Your task to perform on an android device: Go to location settings Image 0: 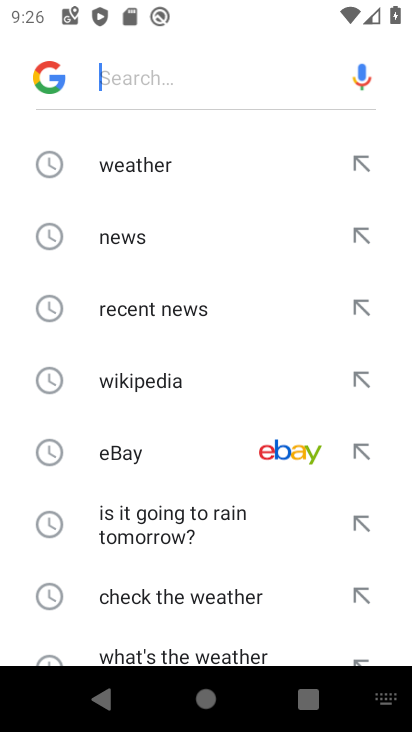
Step 0: press home button
Your task to perform on an android device: Go to location settings Image 1: 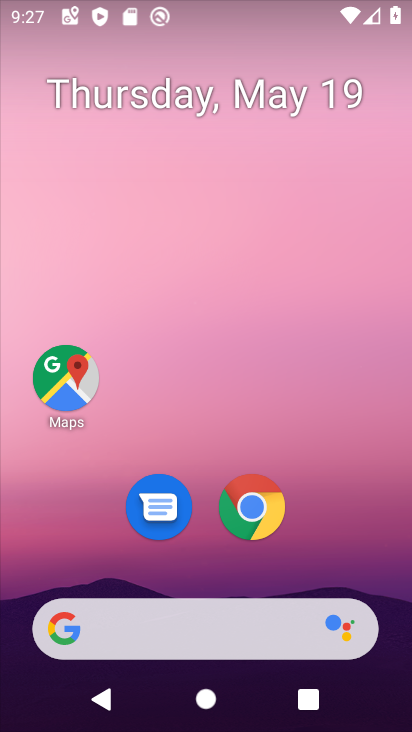
Step 1: drag from (384, 585) to (309, 37)
Your task to perform on an android device: Go to location settings Image 2: 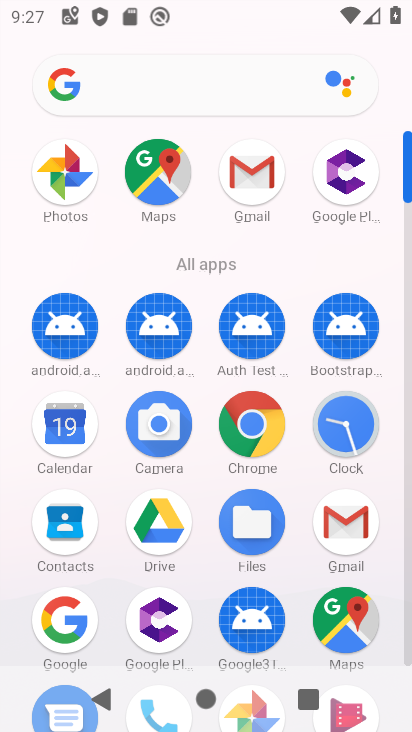
Step 2: click (405, 653)
Your task to perform on an android device: Go to location settings Image 3: 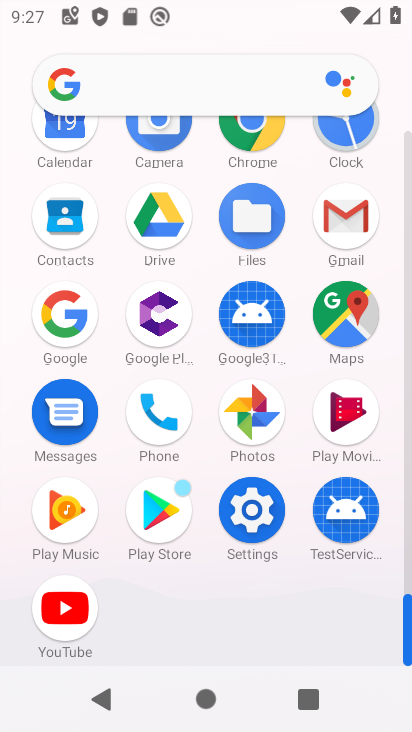
Step 3: click (248, 514)
Your task to perform on an android device: Go to location settings Image 4: 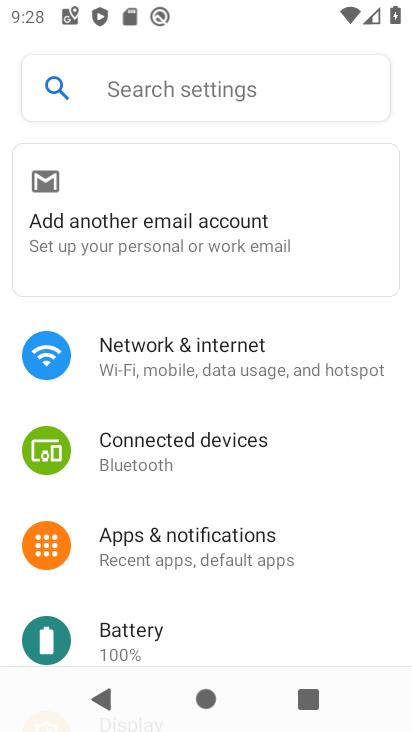
Step 4: drag from (282, 593) to (300, 113)
Your task to perform on an android device: Go to location settings Image 5: 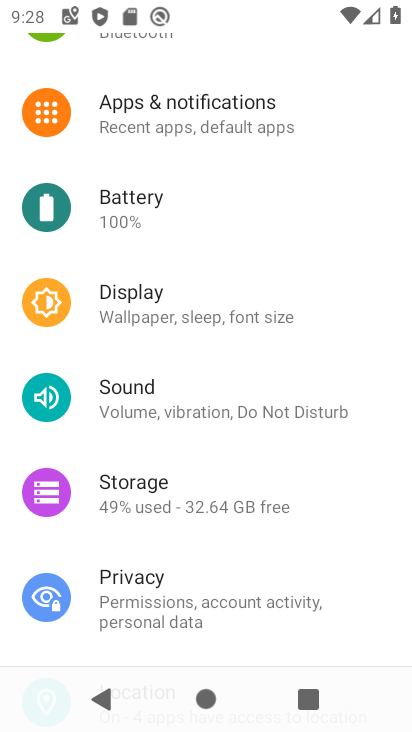
Step 5: drag from (167, 579) to (260, 168)
Your task to perform on an android device: Go to location settings Image 6: 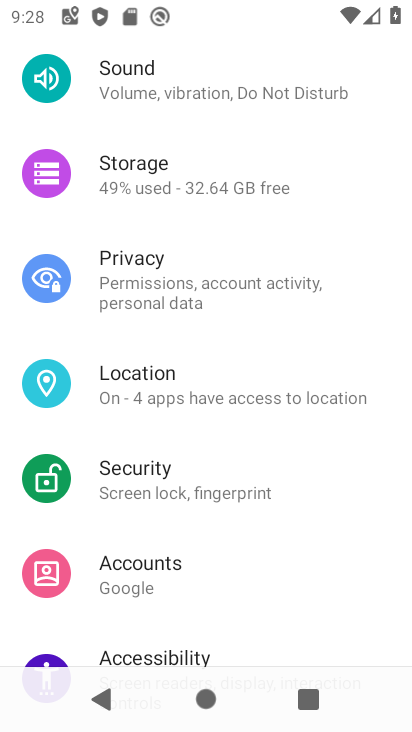
Step 6: click (153, 363)
Your task to perform on an android device: Go to location settings Image 7: 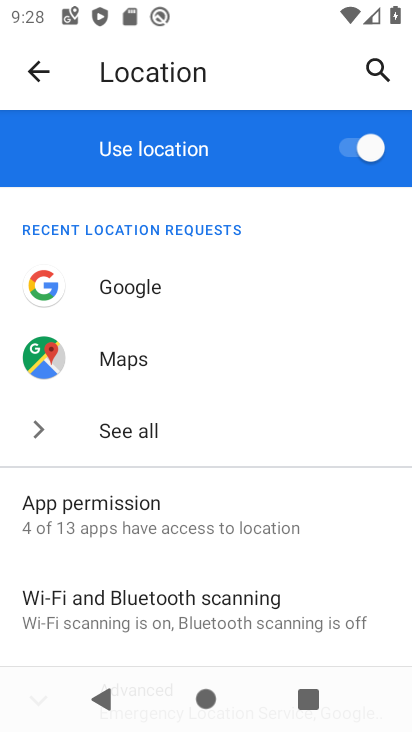
Step 7: drag from (191, 510) to (231, 139)
Your task to perform on an android device: Go to location settings Image 8: 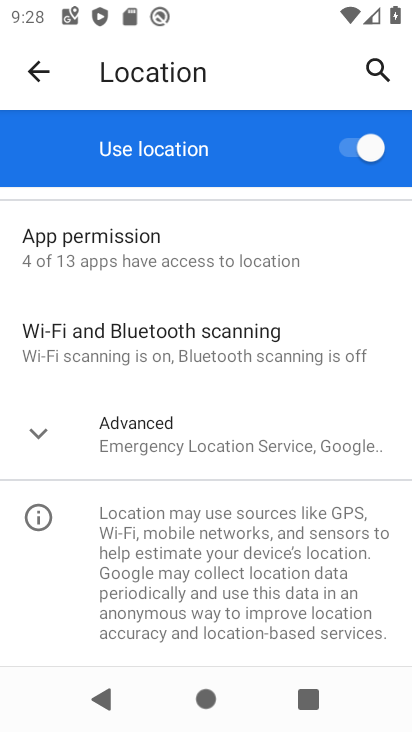
Step 8: click (49, 429)
Your task to perform on an android device: Go to location settings Image 9: 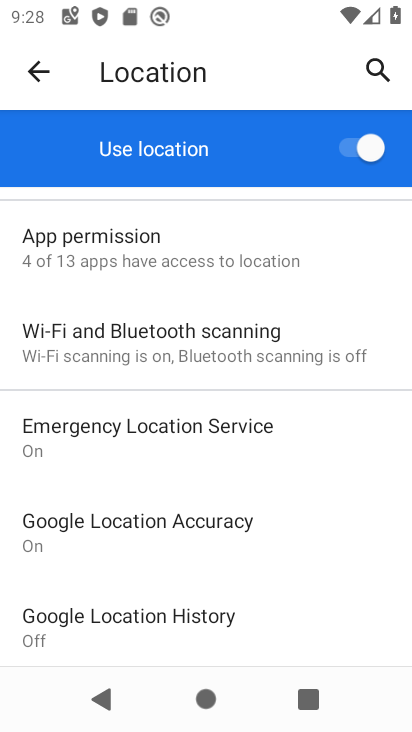
Step 9: task complete